Your task to perform on an android device: Show me popular videos on Youtube Image 0: 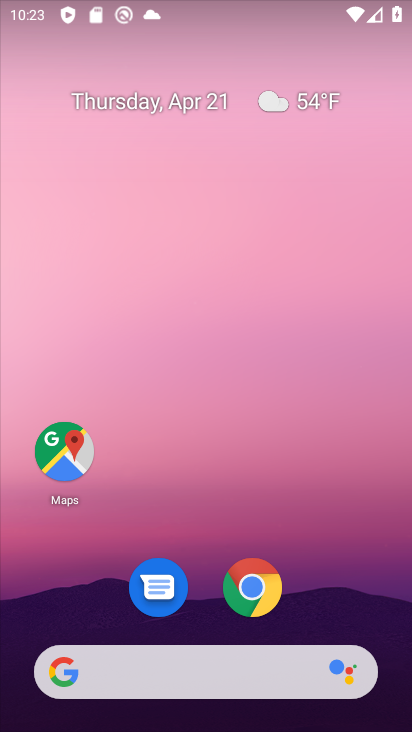
Step 0: drag from (259, 655) to (339, 1)
Your task to perform on an android device: Show me popular videos on Youtube Image 1: 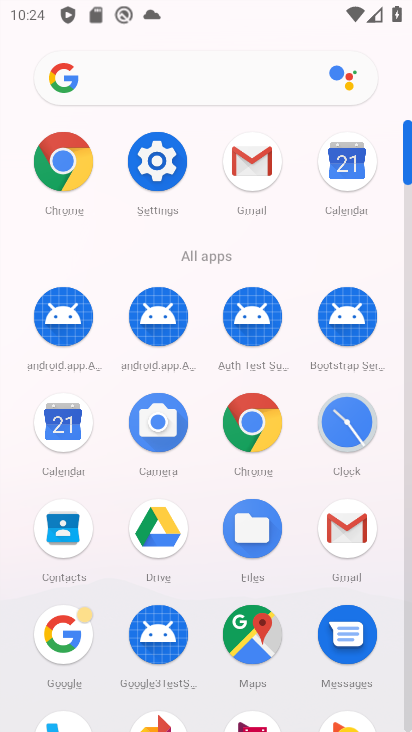
Step 1: drag from (222, 554) to (114, 40)
Your task to perform on an android device: Show me popular videos on Youtube Image 2: 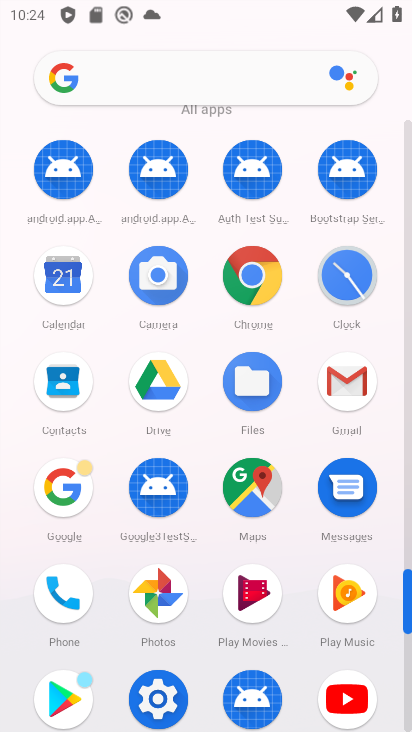
Step 2: click (357, 666)
Your task to perform on an android device: Show me popular videos on Youtube Image 3: 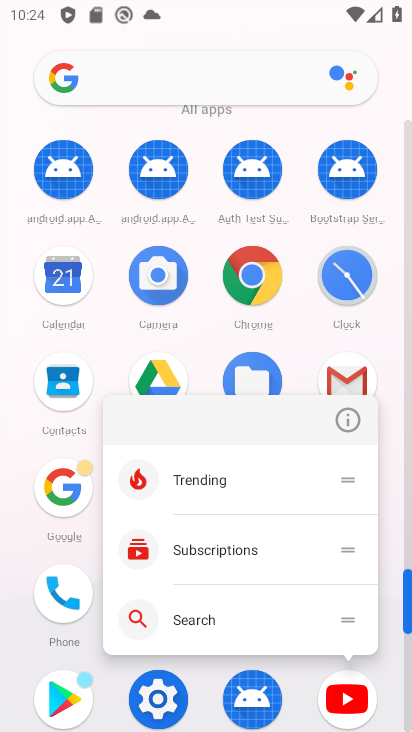
Step 3: click (351, 676)
Your task to perform on an android device: Show me popular videos on Youtube Image 4: 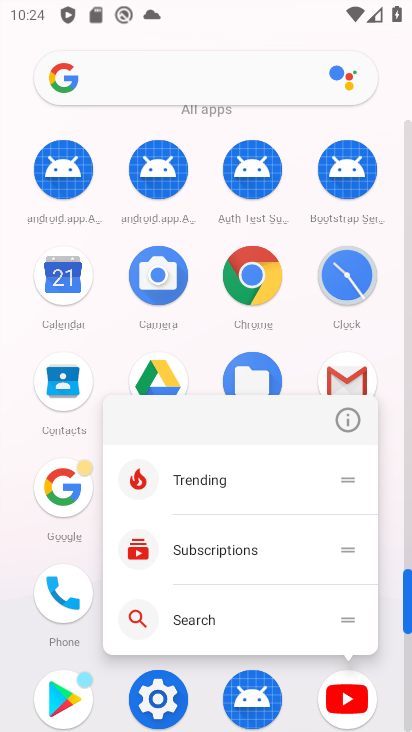
Step 4: click (351, 676)
Your task to perform on an android device: Show me popular videos on Youtube Image 5: 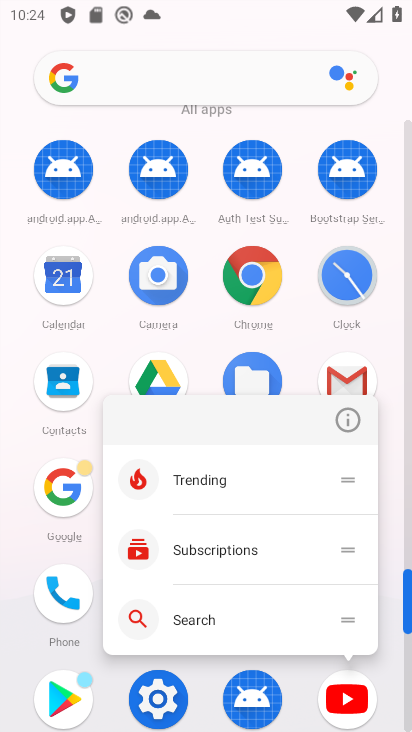
Step 5: click (351, 676)
Your task to perform on an android device: Show me popular videos on Youtube Image 6: 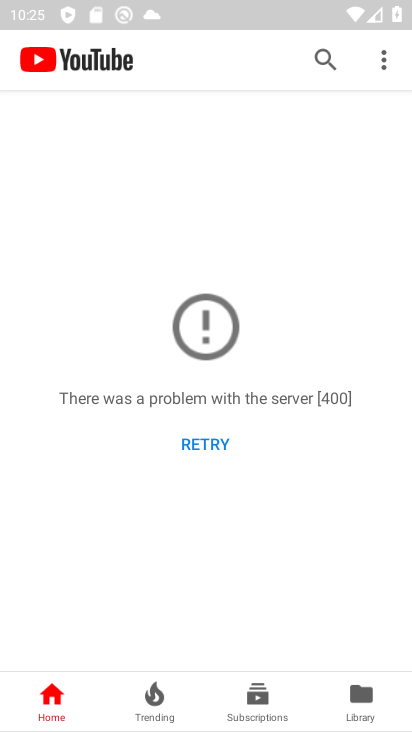
Step 6: click (147, 698)
Your task to perform on an android device: Show me popular videos on Youtube Image 7: 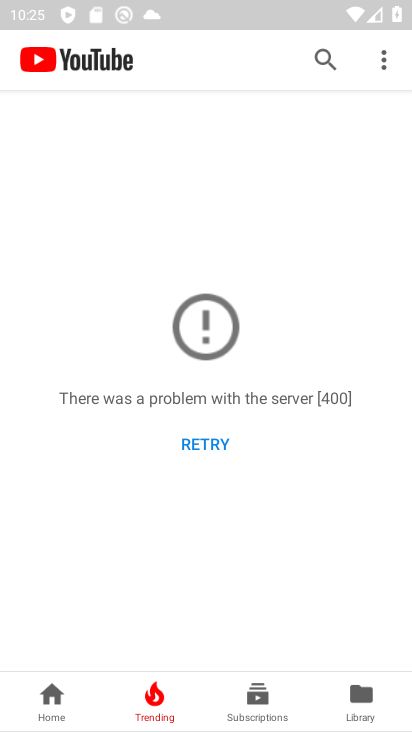
Step 7: task complete